Your task to perform on an android device: open app "Nova Launcher" (install if not already installed) Image 0: 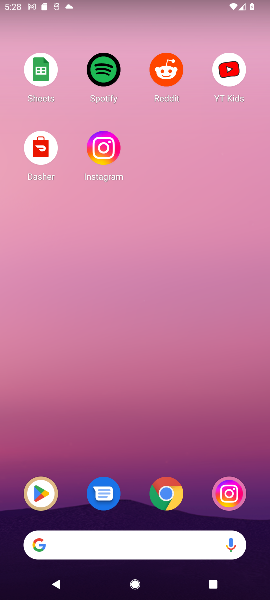
Step 0: drag from (157, 596) to (153, 67)
Your task to perform on an android device: open app "Nova Launcher" (install if not already installed) Image 1: 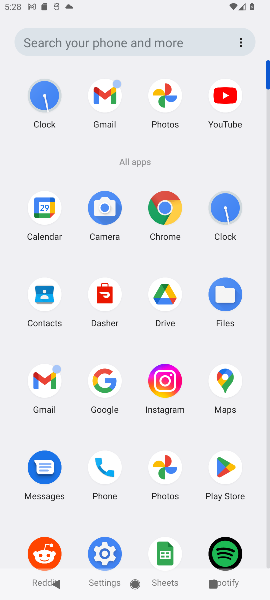
Step 1: click (213, 467)
Your task to perform on an android device: open app "Nova Launcher" (install if not already installed) Image 2: 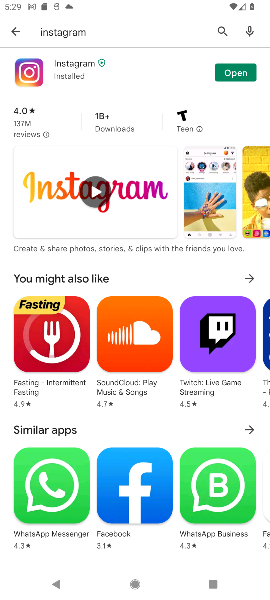
Step 2: click (217, 25)
Your task to perform on an android device: open app "Nova Launcher" (install if not already installed) Image 3: 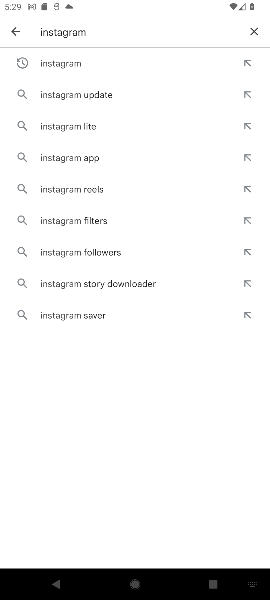
Step 3: click (253, 28)
Your task to perform on an android device: open app "Nova Launcher" (install if not already installed) Image 4: 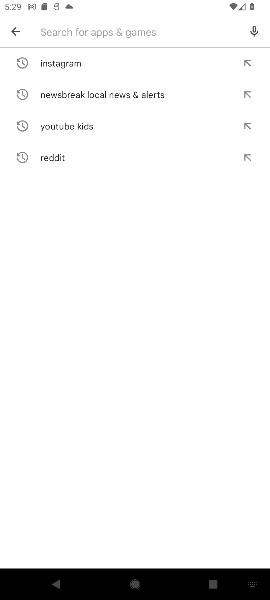
Step 4: type "Nova Launcher"
Your task to perform on an android device: open app "Nova Launcher" (install if not already installed) Image 5: 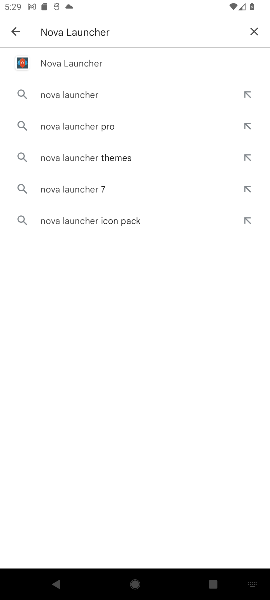
Step 5: click (57, 63)
Your task to perform on an android device: open app "Nova Launcher" (install if not already installed) Image 6: 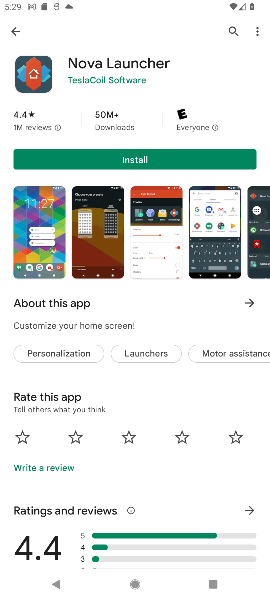
Step 6: click (121, 157)
Your task to perform on an android device: open app "Nova Launcher" (install if not already installed) Image 7: 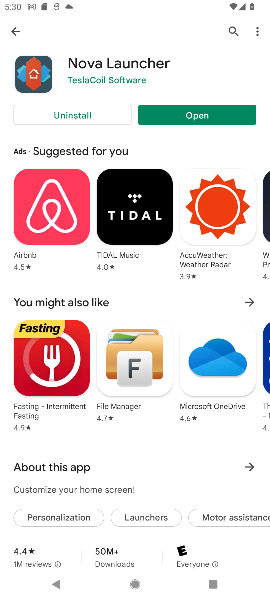
Step 7: task complete